Your task to perform on an android device: open a bookmark in the chrome app Image 0: 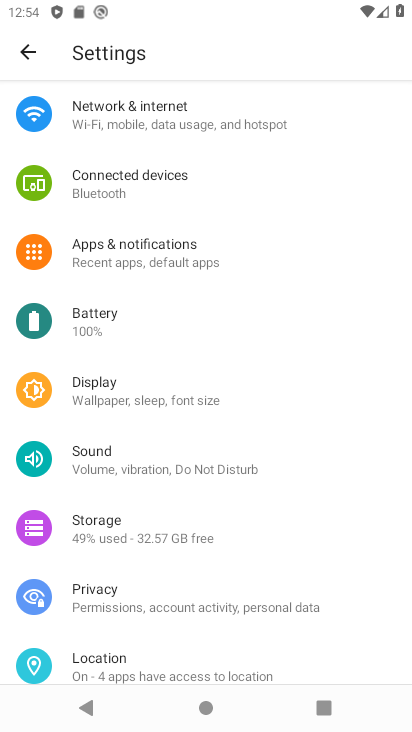
Step 0: press home button
Your task to perform on an android device: open a bookmark in the chrome app Image 1: 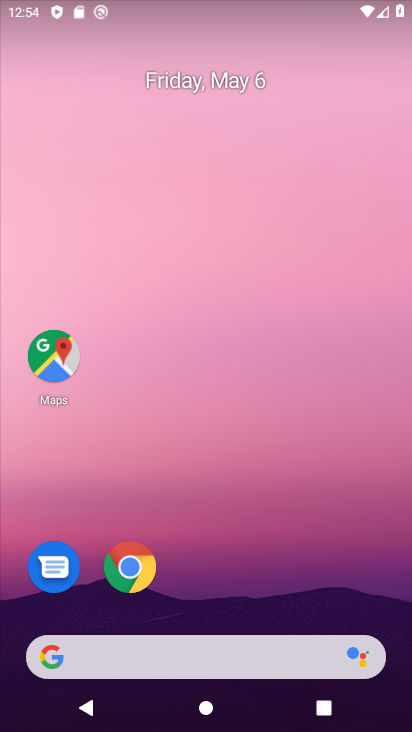
Step 1: drag from (252, 695) to (298, 284)
Your task to perform on an android device: open a bookmark in the chrome app Image 2: 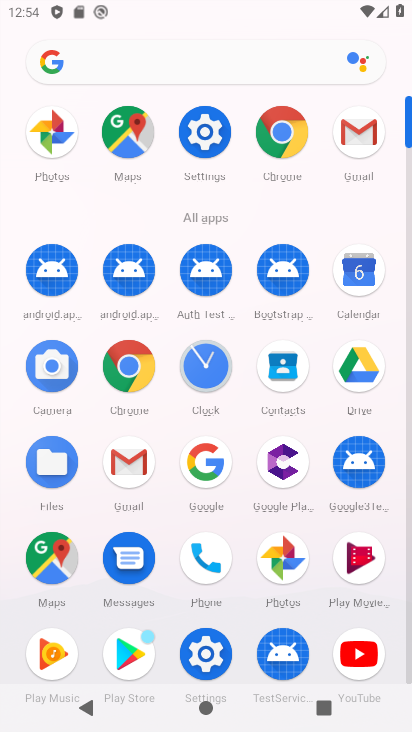
Step 2: click (277, 142)
Your task to perform on an android device: open a bookmark in the chrome app Image 3: 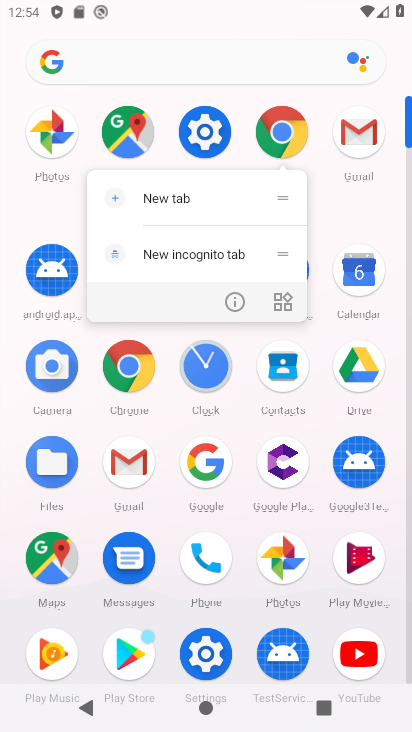
Step 3: click (281, 149)
Your task to perform on an android device: open a bookmark in the chrome app Image 4: 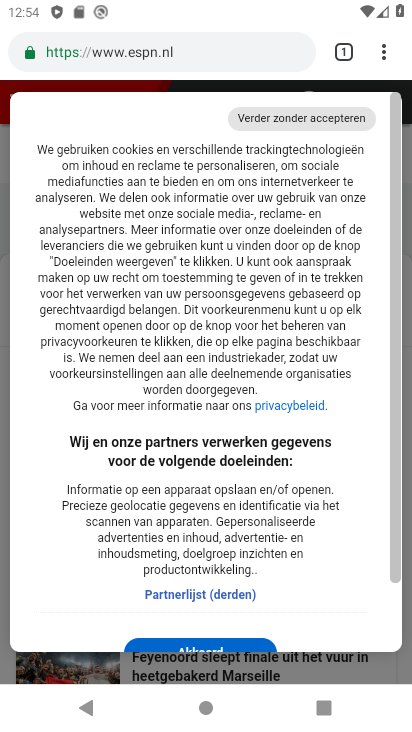
Step 4: click (379, 58)
Your task to perform on an android device: open a bookmark in the chrome app Image 5: 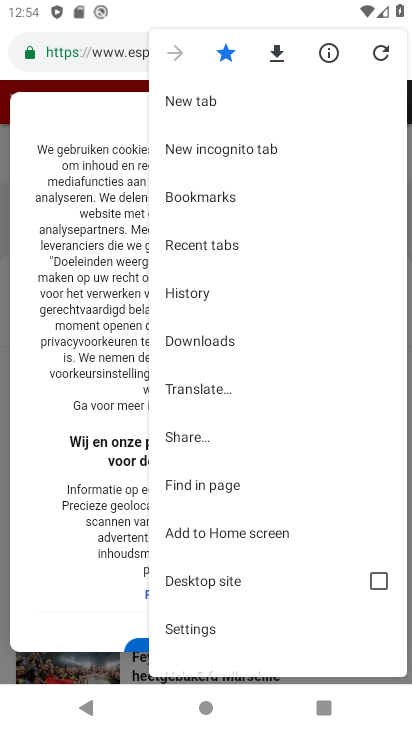
Step 5: click (235, 204)
Your task to perform on an android device: open a bookmark in the chrome app Image 6: 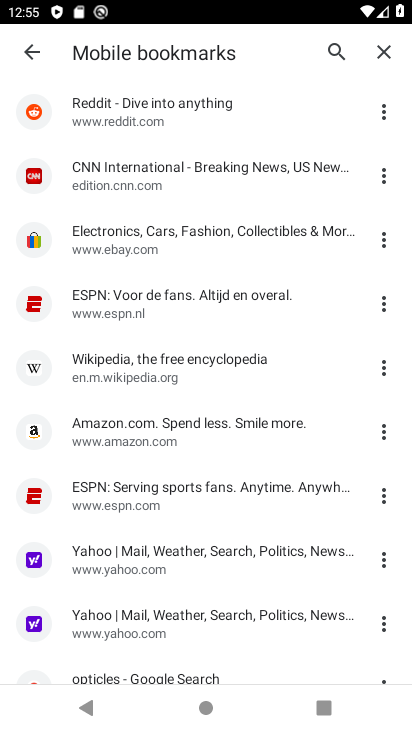
Step 6: click (174, 551)
Your task to perform on an android device: open a bookmark in the chrome app Image 7: 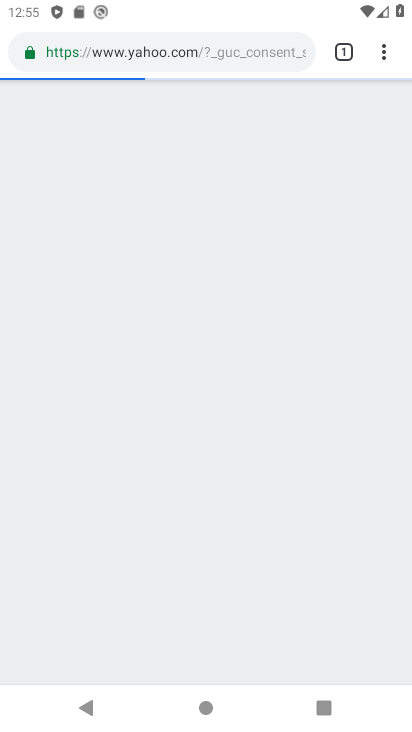
Step 7: task complete